Your task to perform on an android device: toggle wifi Image 0: 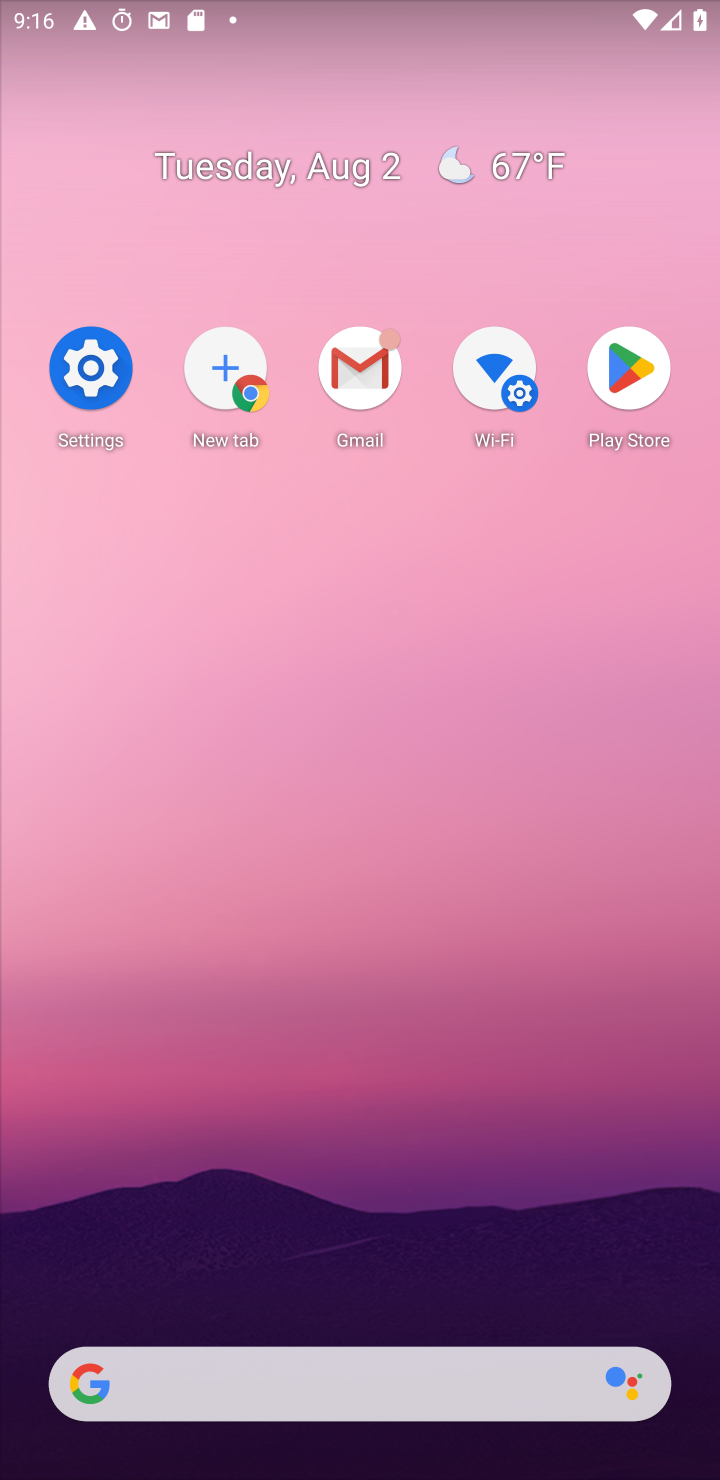
Step 0: click (374, 510)
Your task to perform on an android device: toggle wifi Image 1: 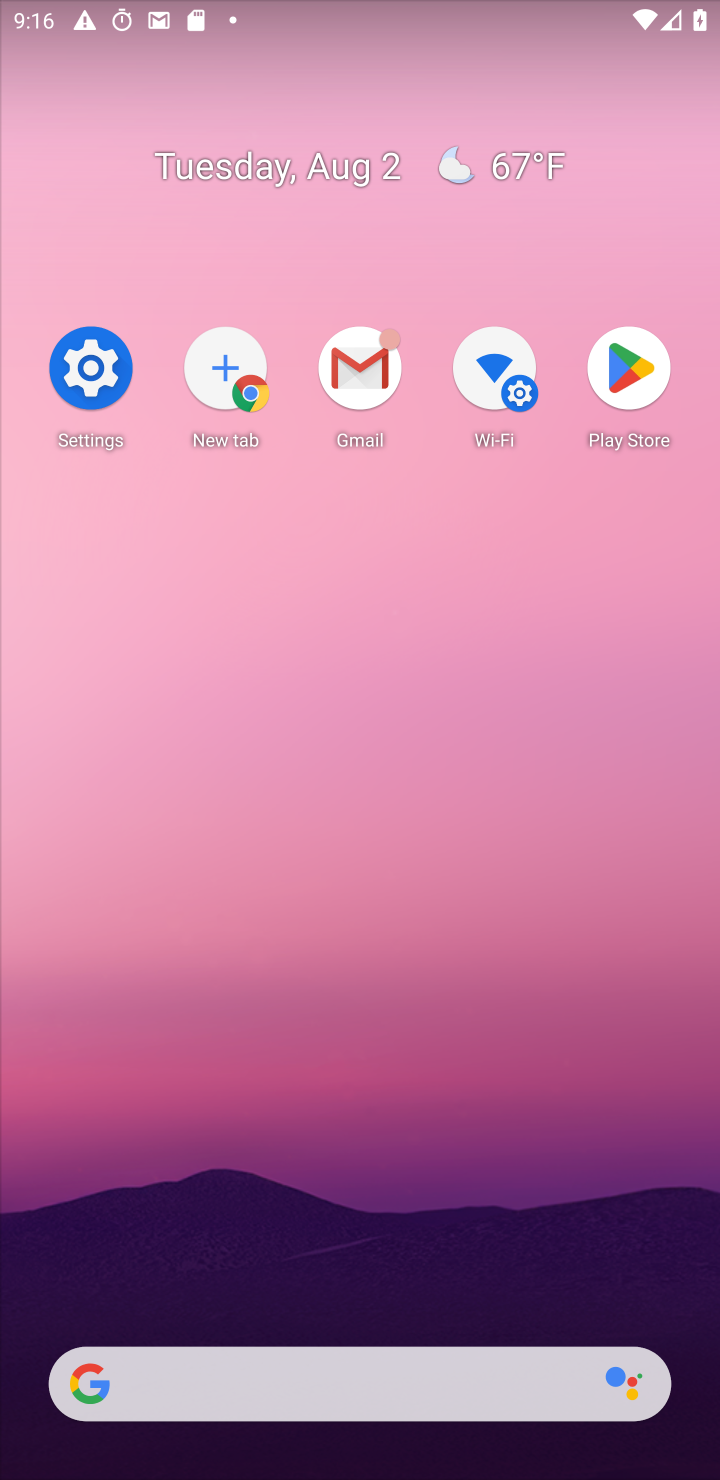
Step 1: drag from (420, 1054) to (281, 250)
Your task to perform on an android device: toggle wifi Image 2: 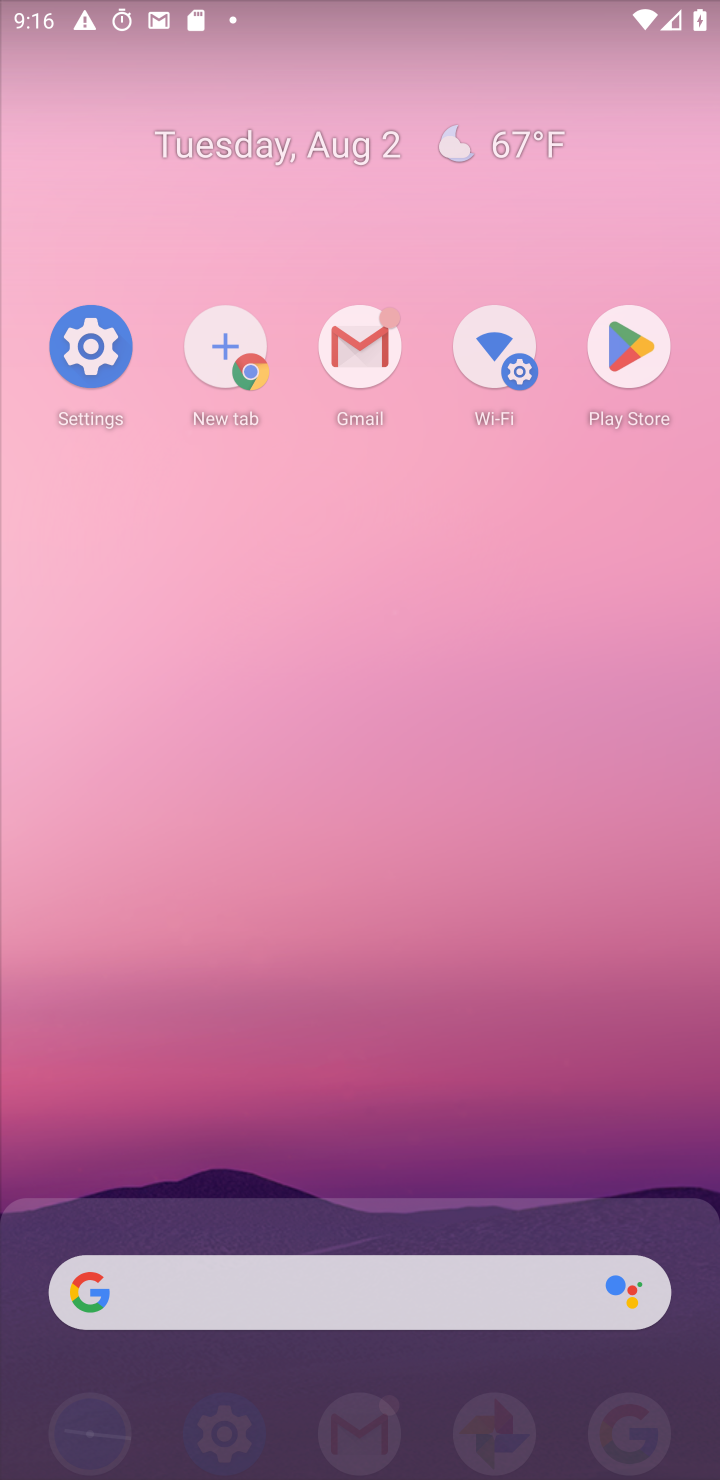
Step 2: drag from (376, 807) to (297, 54)
Your task to perform on an android device: toggle wifi Image 3: 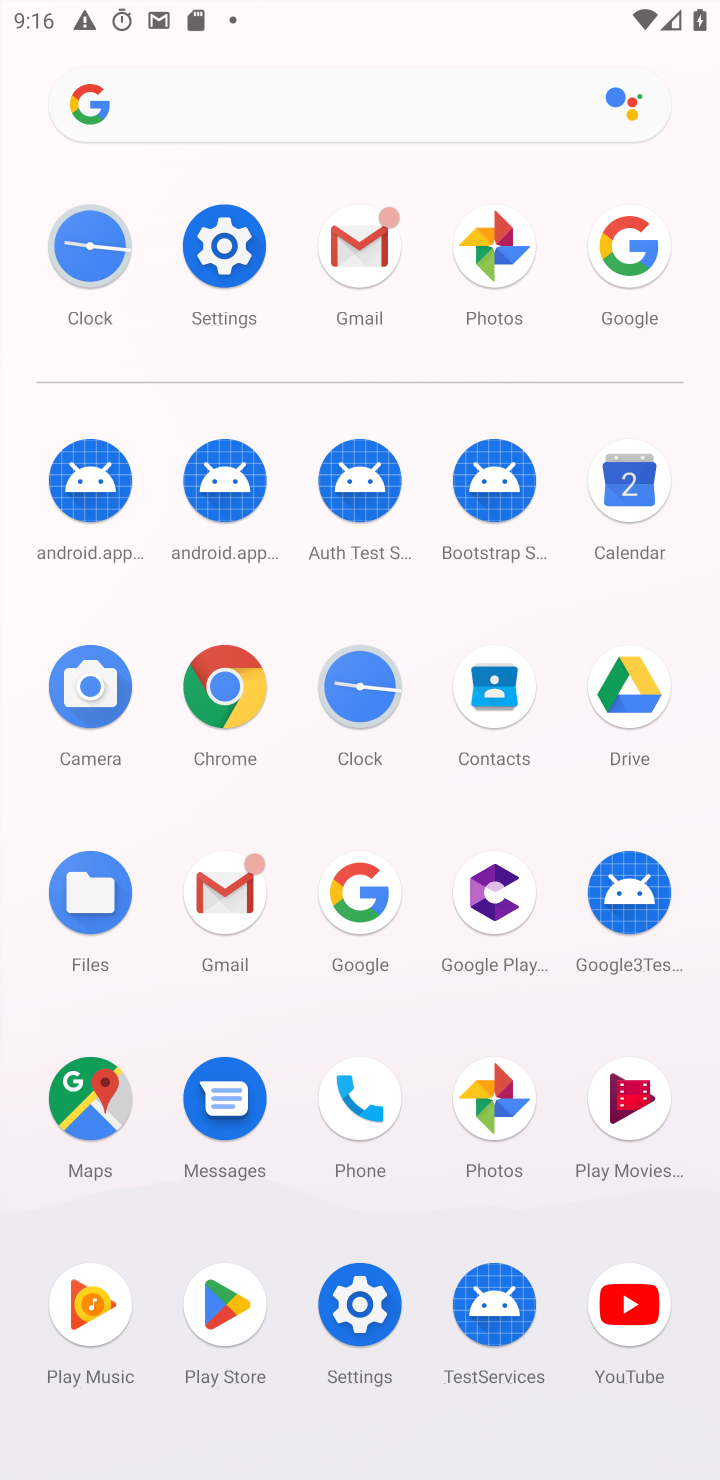
Step 3: click (212, 255)
Your task to perform on an android device: toggle wifi Image 4: 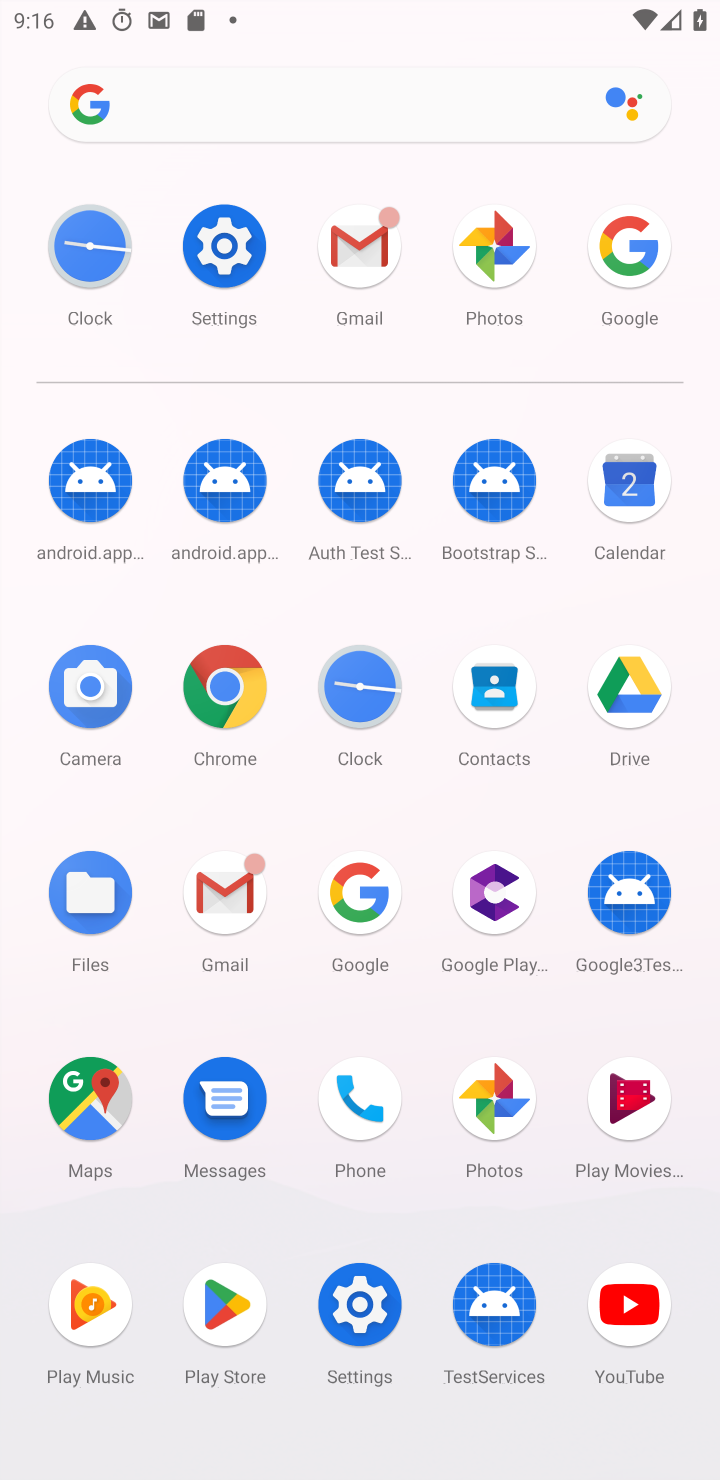
Step 4: click (216, 255)
Your task to perform on an android device: toggle wifi Image 5: 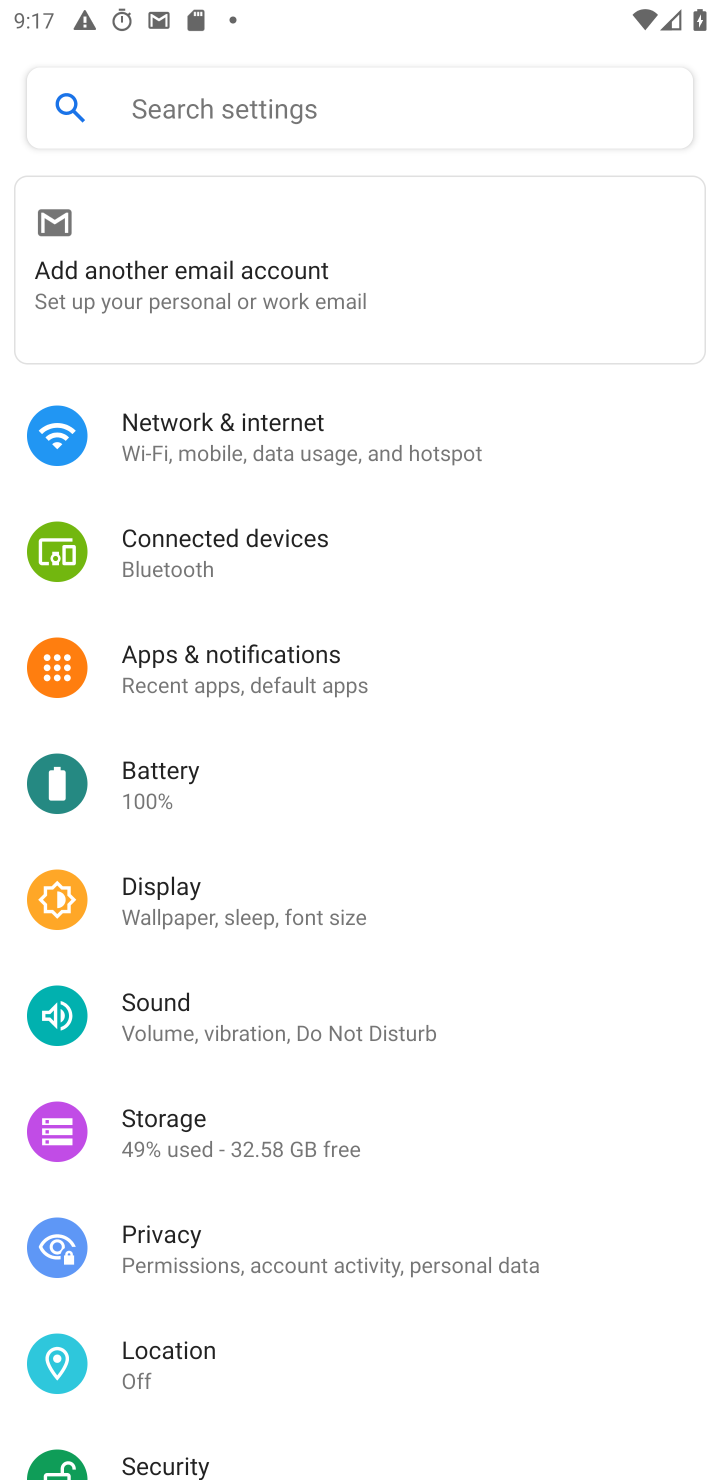
Step 5: click (254, 432)
Your task to perform on an android device: toggle wifi Image 6: 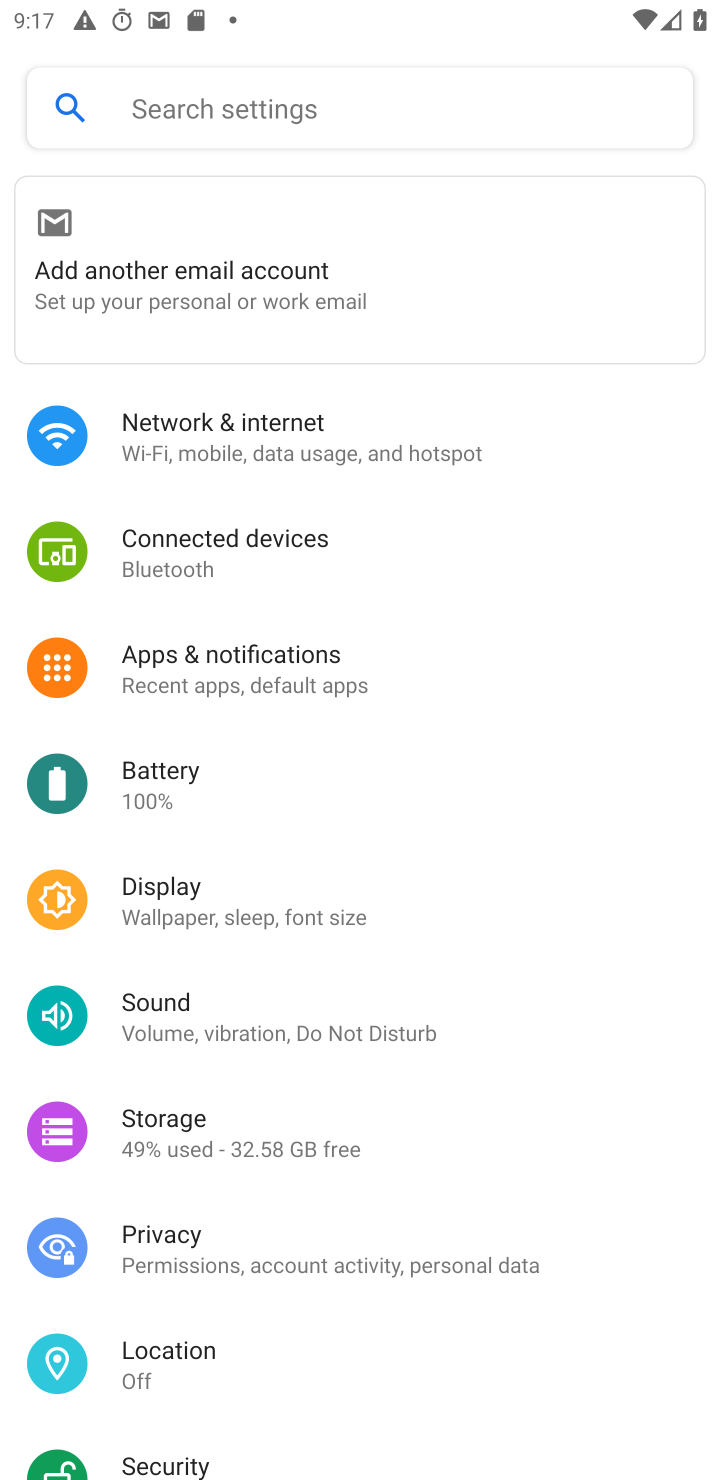
Step 6: click (254, 432)
Your task to perform on an android device: toggle wifi Image 7: 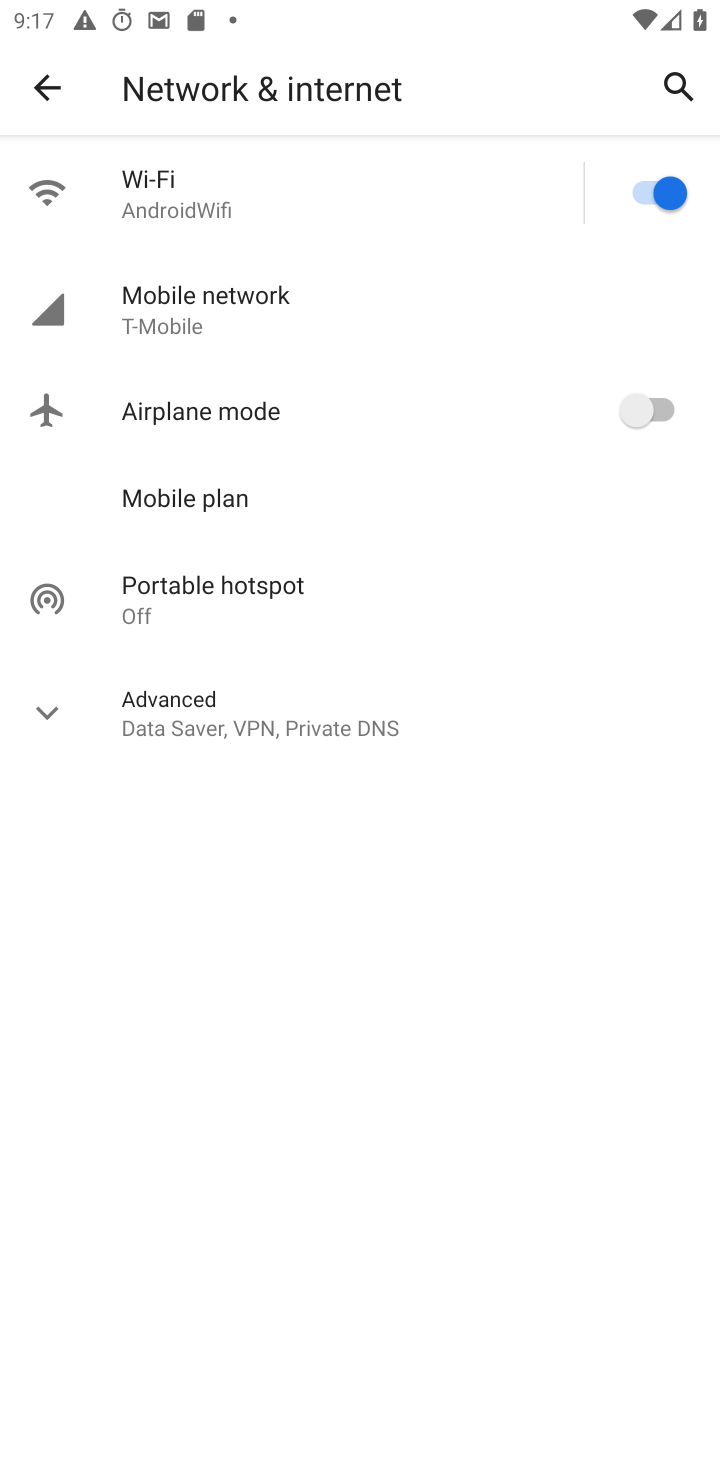
Step 7: click (676, 171)
Your task to perform on an android device: toggle wifi Image 8: 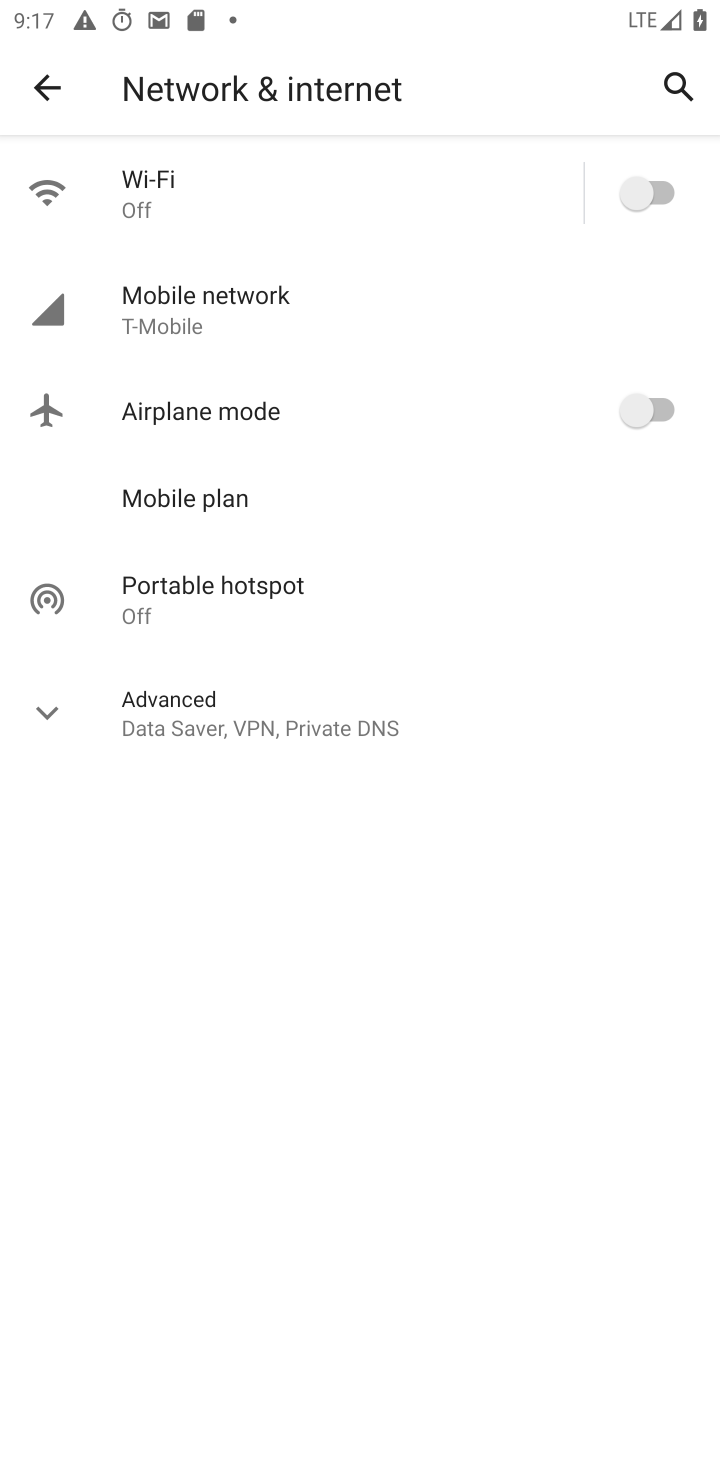
Step 8: task complete